Your task to perform on an android device: change text size in settings app Image 0: 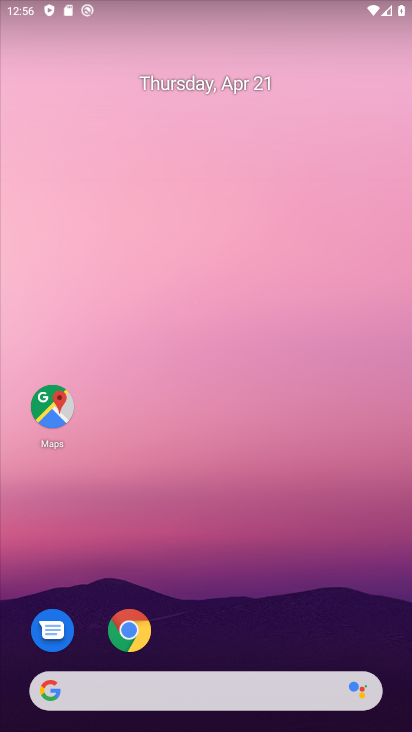
Step 0: drag from (208, 559) to (208, 165)
Your task to perform on an android device: change text size in settings app Image 1: 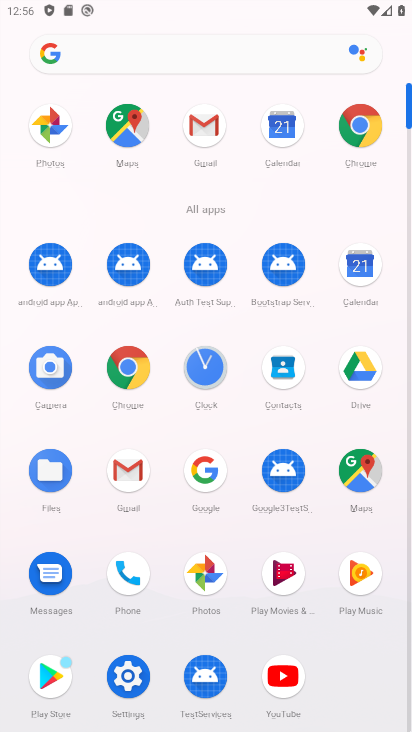
Step 1: click (144, 678)
Your task to perform on an android device: change text size in settings app Image 2: 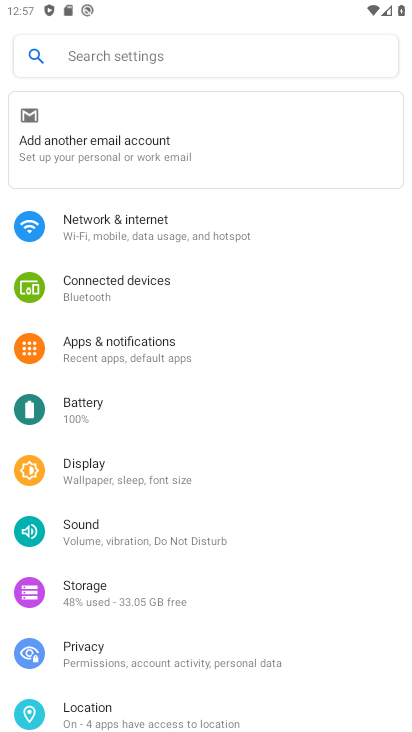
Step 2: click (168, 473)
Your task to perform on an android device: change text size in settings app Image 3: 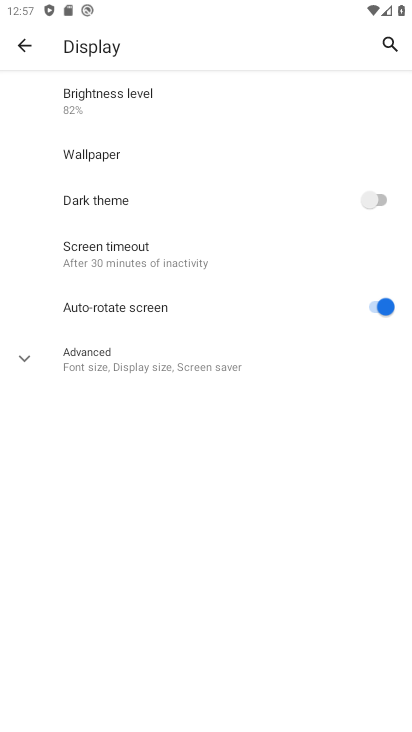
Step 3: click (144, 364)
Your task to perform on an android device: change text size in settings app Image 4: 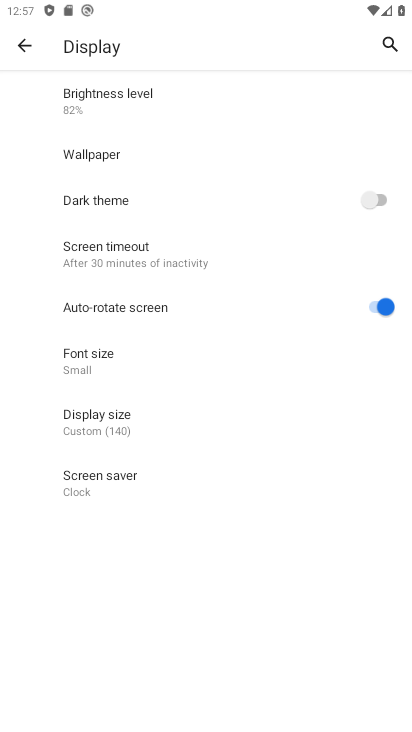
Step 4: click (129, 360)
Your task to perform on an android device: change text size in settings app Image 5: 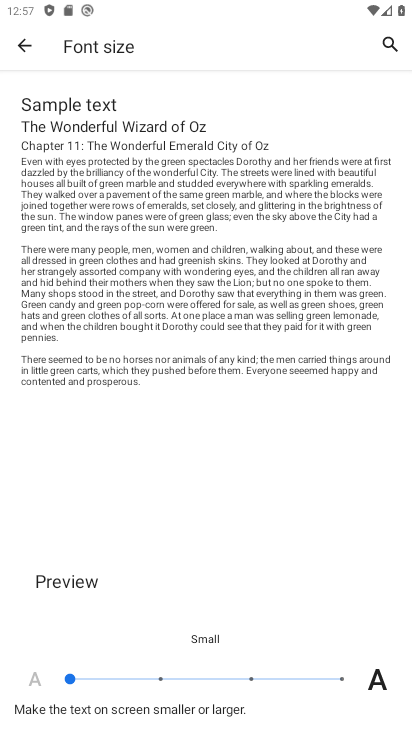
Step 5: click (252, 678)
Your task to perform on an android device: change text size in settings app Image 6: 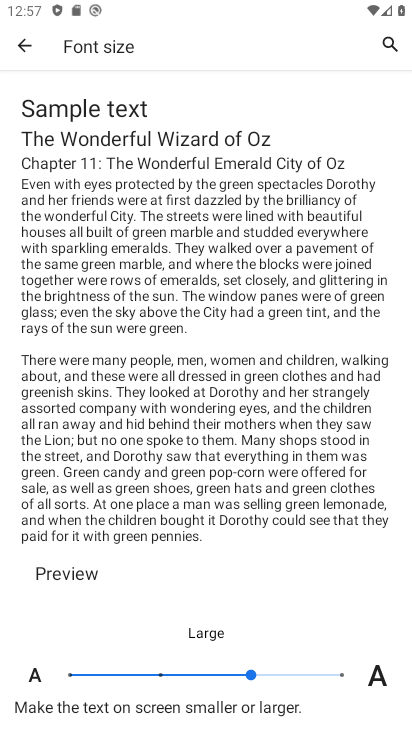
Step 6: task complete